Your task to perform on an android device: What's on my calendar today? Image 0: 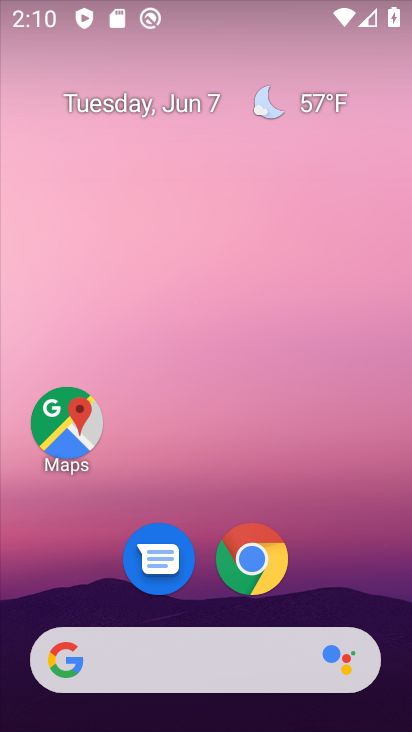
Step 0: drag from (293, 544) to (2, 182)
Your task to perform on an android device: What's on my calendar today? Image 1: 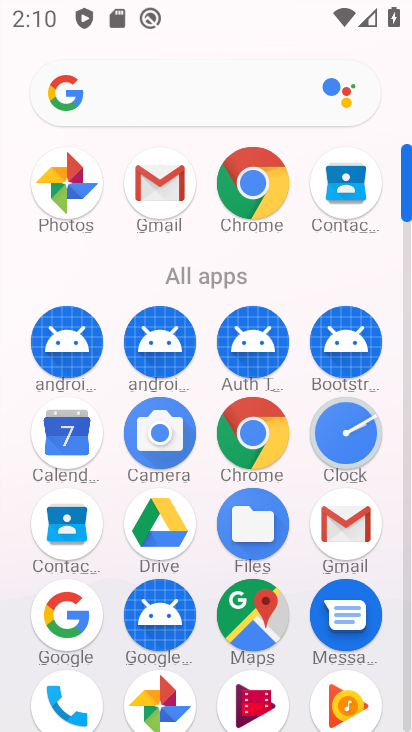
Step 1: drag from (5, 302) to (12, 225)
Your task to perform on an android device: What's on my calendar today? Image 2: 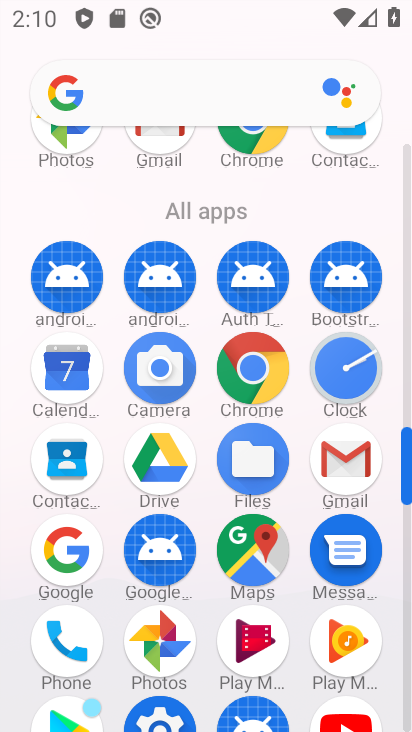
Step 2: drag from (6, 578) to (15, 322)
Your task to perform on an android device: What's on my calendar today? Image 3: 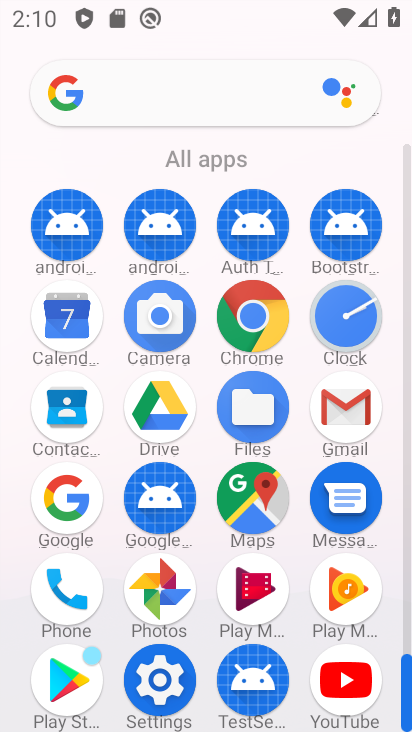
Step 3: click (64, 316)
Your task to perform on an android device: What's on my calendar today? Image 4: 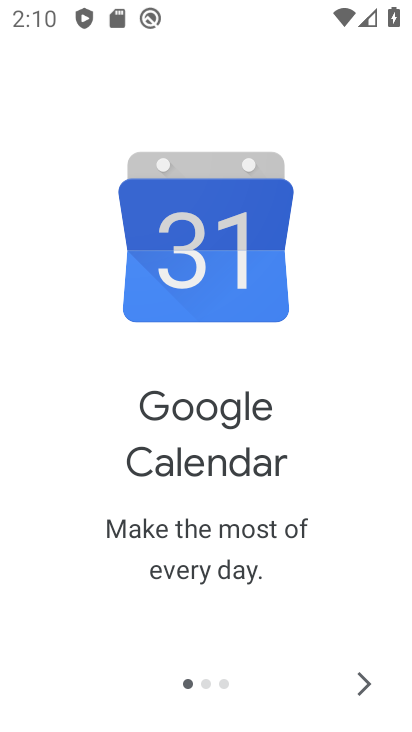
Step 4: click (361, 684)
Your task to perform on an android device: What's on my calendar today? Image 5: 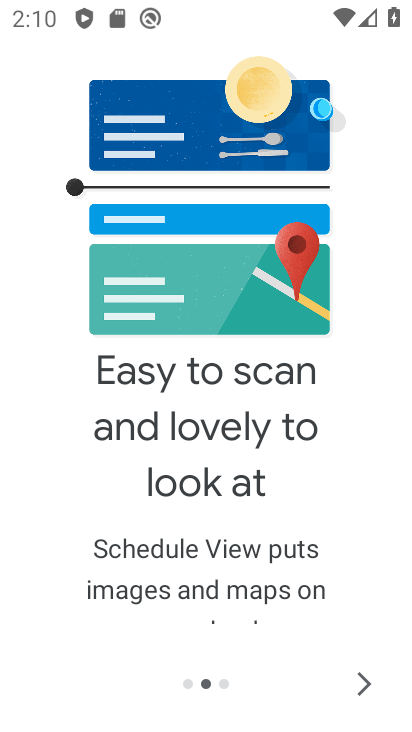
Step 5: click (353, 670)
Your task to perform on an android device: What's on my calendar today? Image 6: 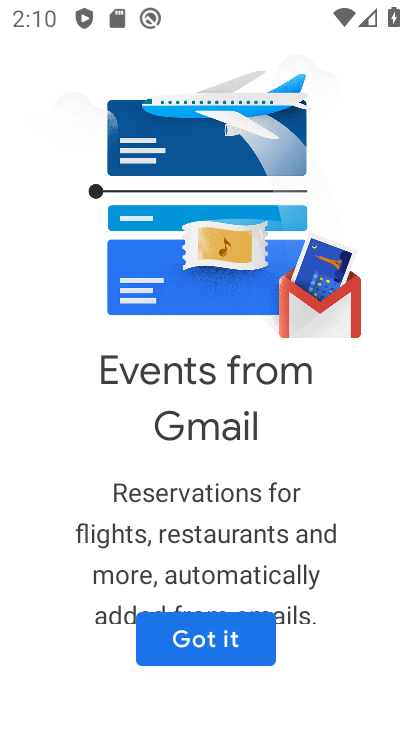
Step 6: click (236, 636)
Your task to perform on an android device: What's on my calendar today? Image 7: 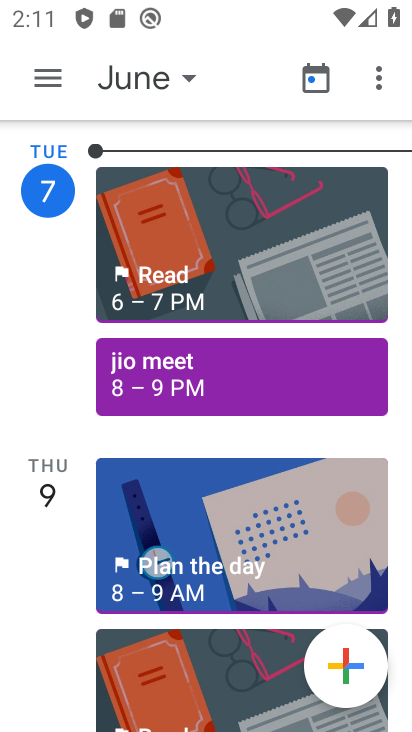
Step 7: click (312, 68)
Your task to perform on an android device: What's on my calendar today? Image 8: 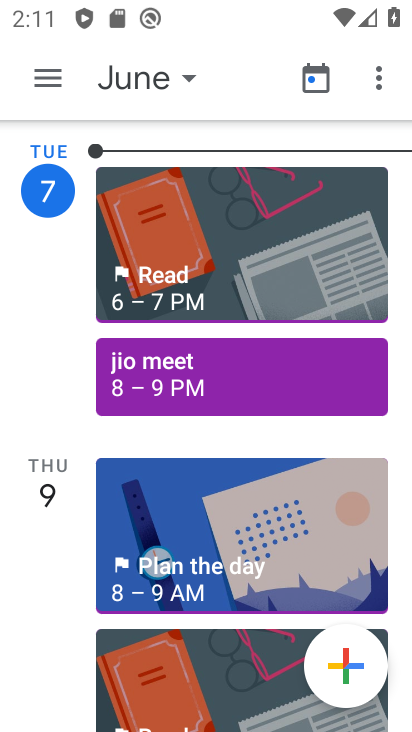
Step 8: task complete